Your task to perform on an android device: turn off notifications settings in the gmail app Image 0: 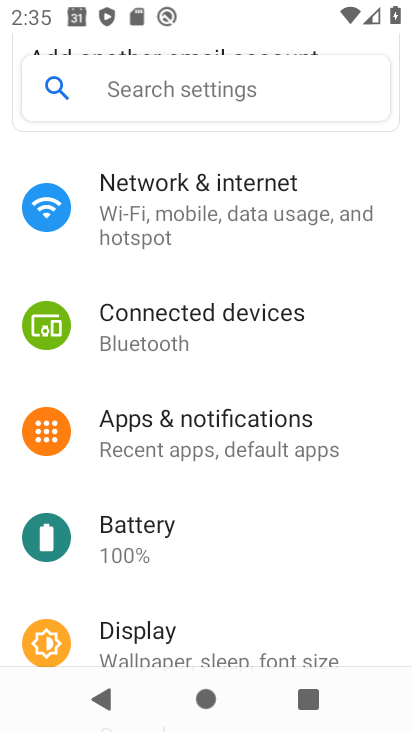
Step 0: press home button
Your task to perform on an android device: turn off notifications settings in the gmail app Image 1: 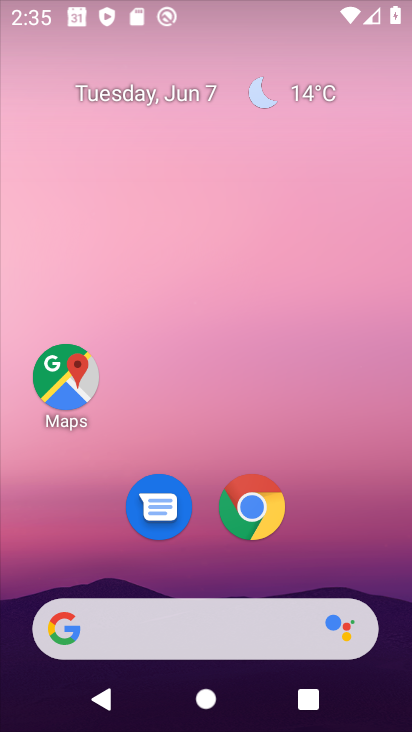
Step 1: drag from (321, 499) to (323, 138)
Your task to perform on an android device: turn off notifications settings in the gmail app Image 2: 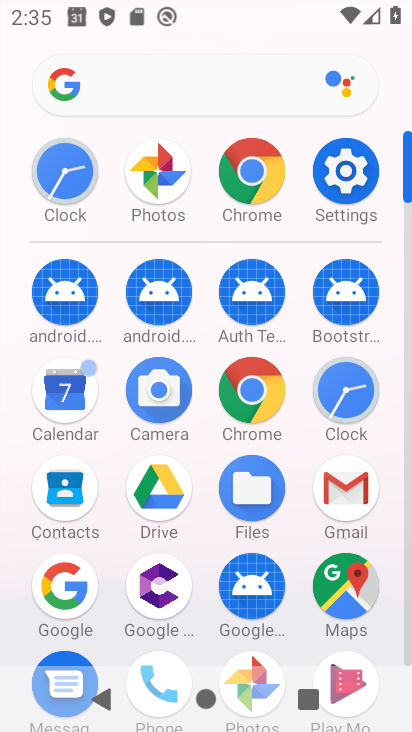
Step 2: click (338, 187)
Your task to perform on an android device: turn off notifications settings in the gmail app Image 3: 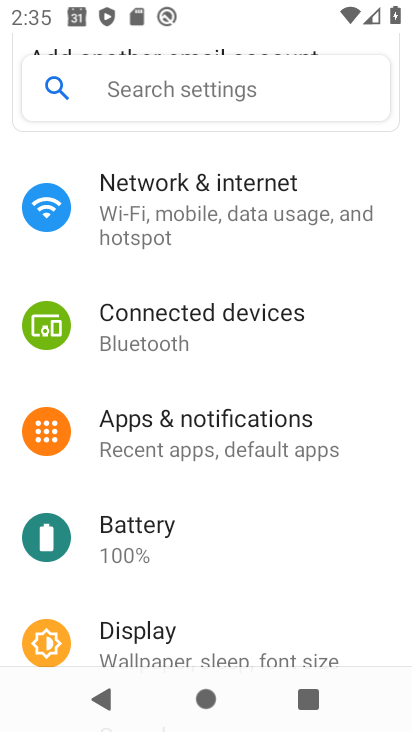
Step 3: click (164, 422)
Your task to perform on an android device: turn off notifications settings in the gmail app Image 4: 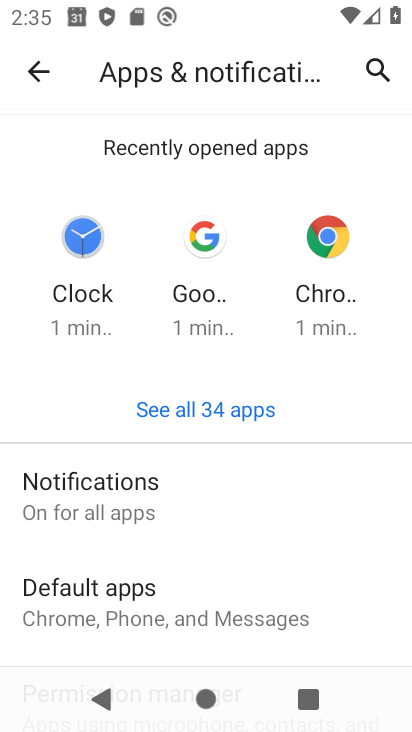
Step 4: click (142, 492)
Your task to perform on an android device: turn off notifications settings in the gmail app Image 5: 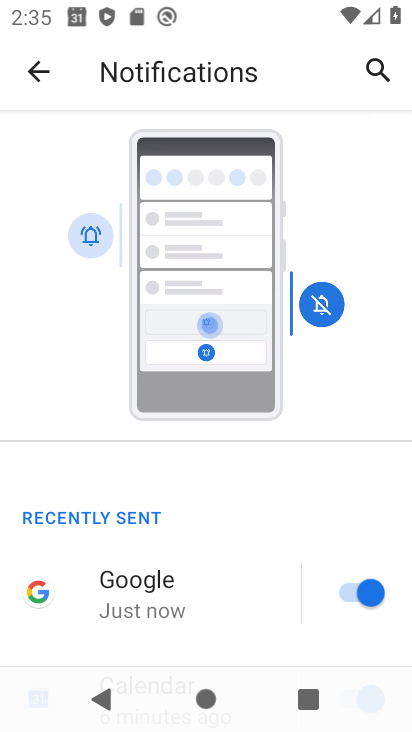
Step 5: press home button
Your task to perform on an android device: turn off notifications settings in the gmail app Image 6: 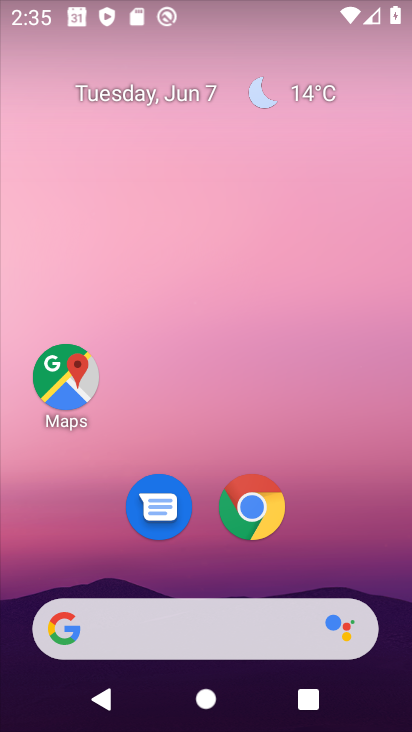
Step 6: drag from (310, 481) to (354, 85)
Your task to perform on an android device: turn off notifications settings in the gmail app Image 7: 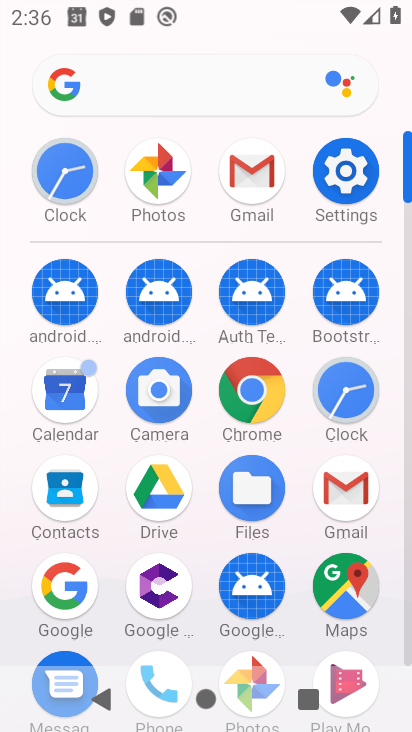
Step 7: click (250, 186)
Your task to perform on an android device: turn off notifications settings in the gmail app Image 8: 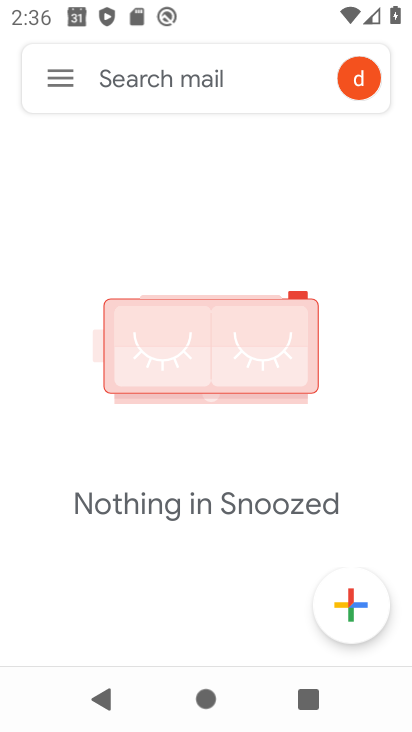
Step 8: click (59, 76)
Your task to perform on an android device: turn off notifications settings in the gmail app Image 9: 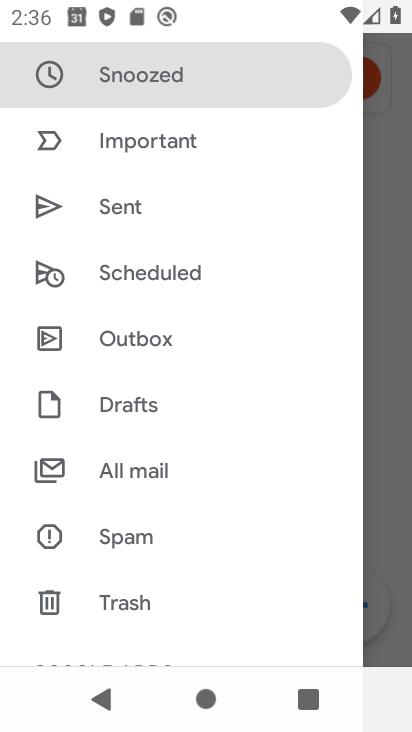
Step 9: drag from (143, 550) to (217, 103)
Your task to perform on an android device: turn off notifications settings in the gmail app Image 10: 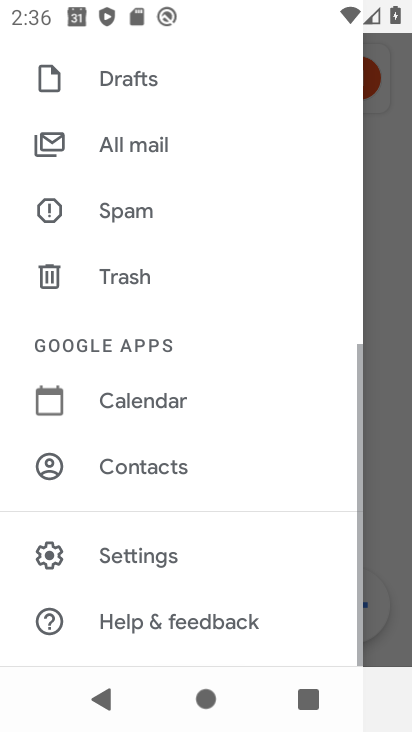
Step 10: click (181, 577)
Your task to perform on an android device: turn off notifications settings in the gmail app Image 11: 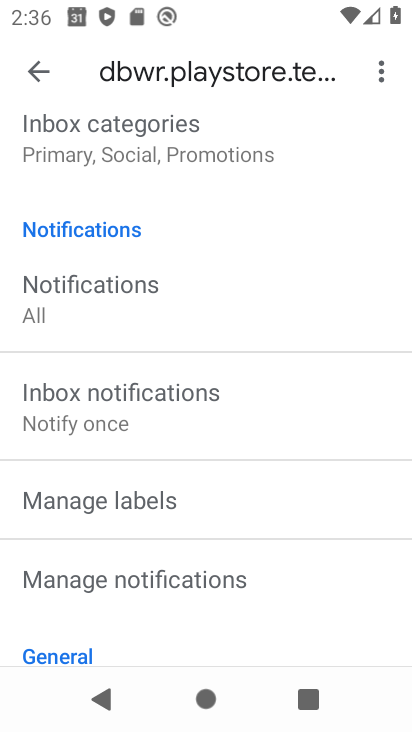
Step 11: click (156, 572)
Your task to perform on an android device: turn off notifications settings in the gmail app Image 12: 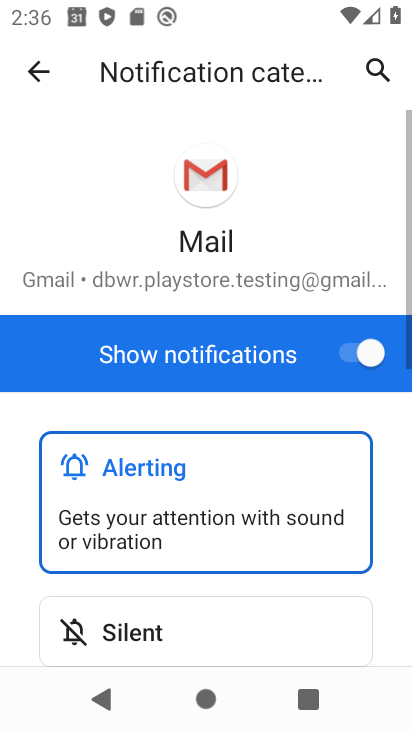
Step 12: click (369, 353)
Your task to perform on an android device: turn off notifications settings in the gmail app Image 13: 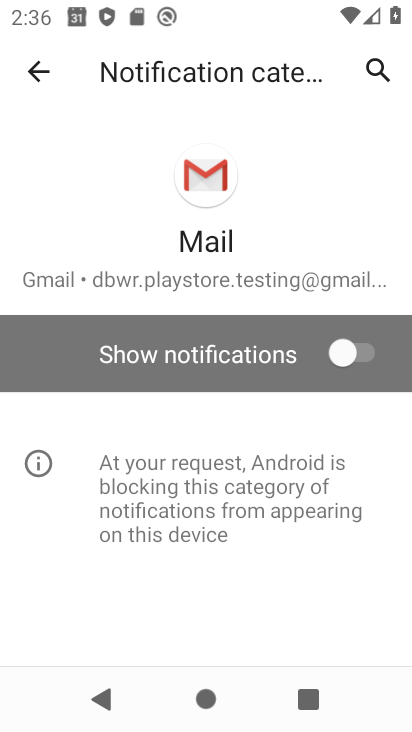
Step 13: task complete